Your task to perform on an android device: Open my contact list Image 0: 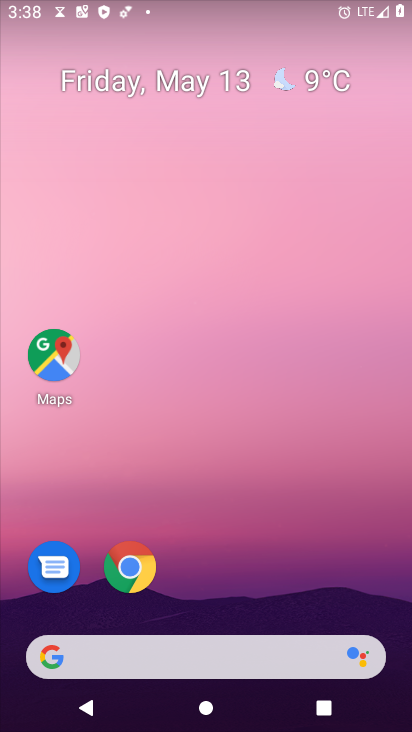
Step 0: drag from (269, 622) to (304, 13)
Your task to perform on an android device: Open my contact list Image 1: 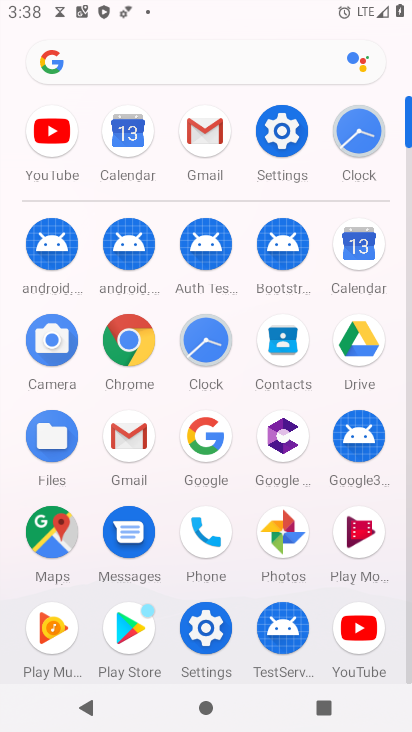
Step 1: click (282, 350)
Your task to perform on an android device: Open my contact list Image 2: 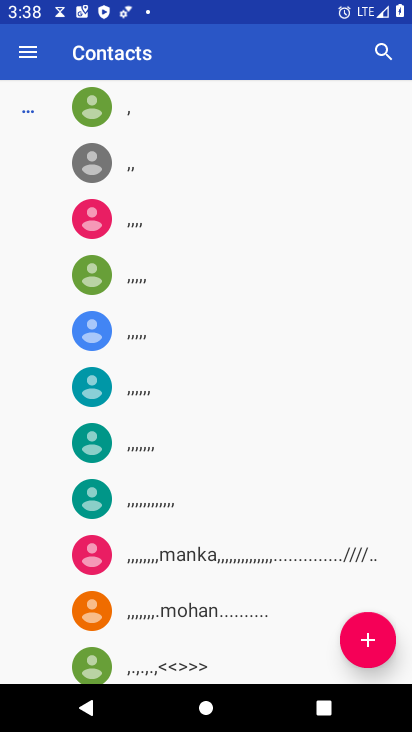
Step 2: task complete